Your task to perform on an android device: turn off priority inbox in the gmail app Image 0: 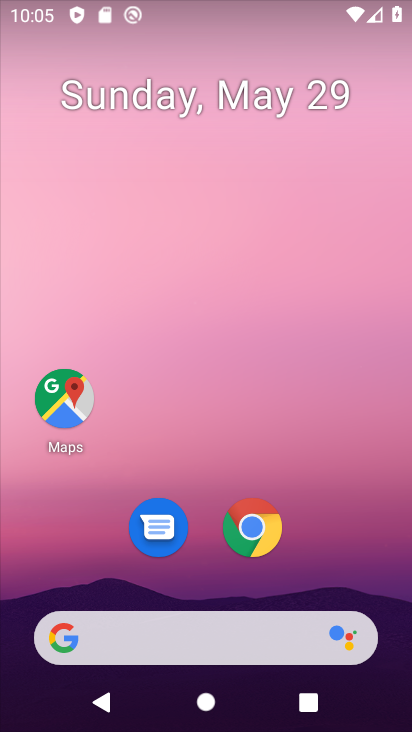
Step 0: drag from (349, 541) to (313, 116)
Your task to perform on an android device: turn off priority inbox in the gmail app Image 1: 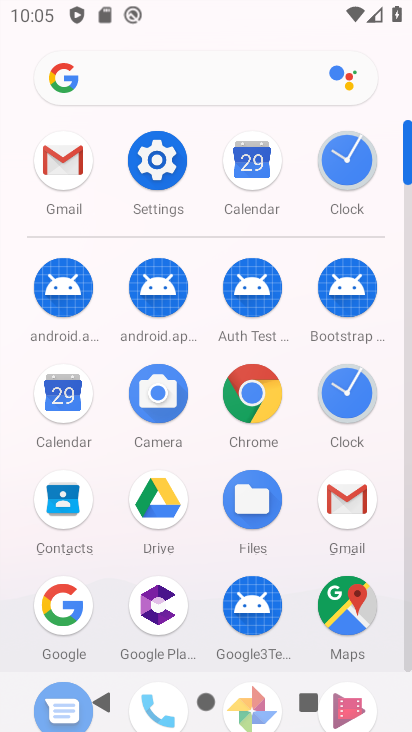
Step 1: click (49, 163)
Your task to perform on an android device: turn off priority inbox in the gmail app Image 2: 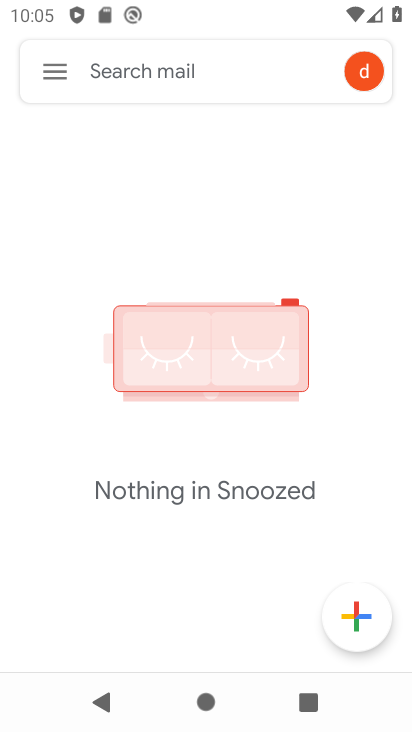
Step 2: click (46, 76)
Your task to perform on an android device: turn off priority inbox in the gmail app Image 3: 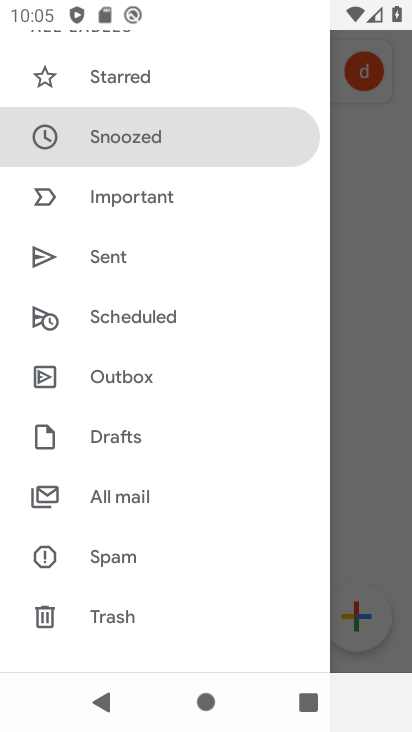
Step 3: drag from (176, 487) to (249, 132)
Your task to perform on an android device: turn off priority inbox in the gmail app Image 4: 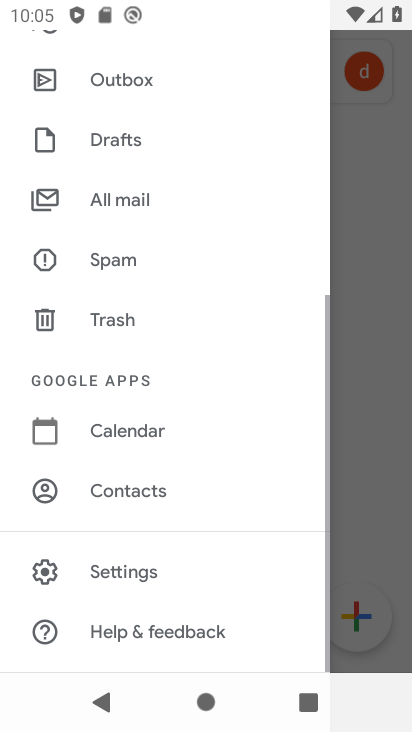
Step 4: click (110, 571)
Your task to perform on an android device: turn off priority inbox in the gmail app Image 5: 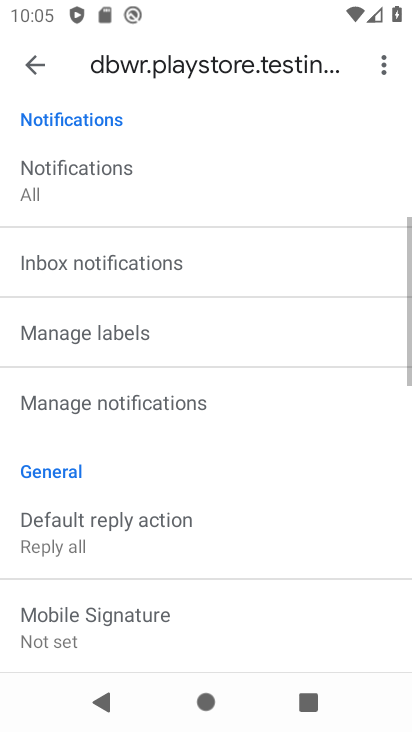
Step 5: drag from (234, 581) to (220, 694)
Your task to perform on an android device: turn off priority inbox in the gmail app Image 6: 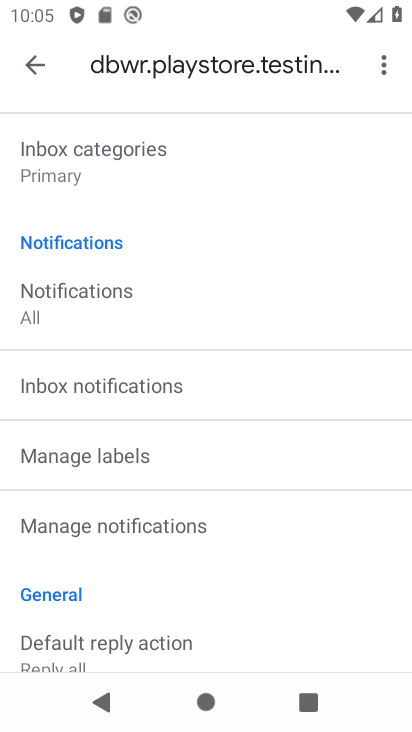
Step 6: drag from (305, 229) to (274, 650)
Your task to perform on an android device: turn off priority inbox in the gmail app Image 7: 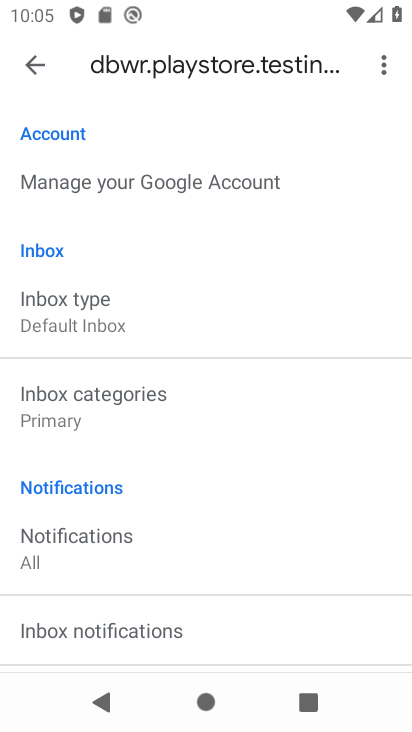
Step 7: click (83, 311)
Your task to perform on an android device: turn off priority inbox in the gmail app Image 8: 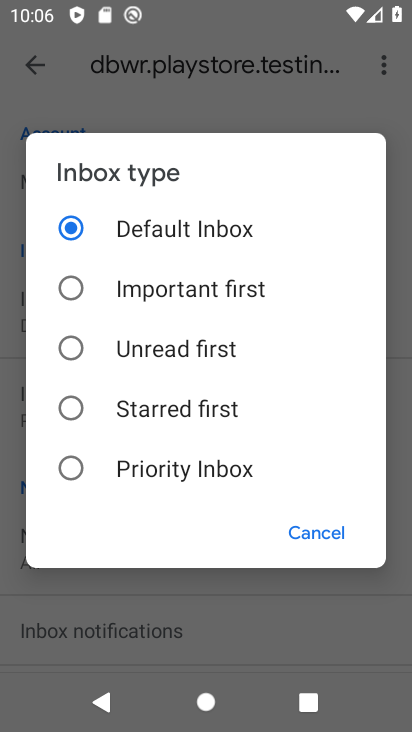
Step 8: task complete